Your task to perform on an android device: delete location history Image 0: 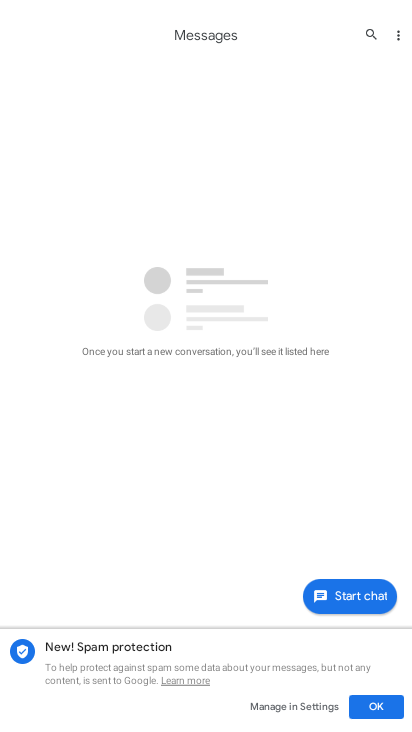
Step 0: press home button
Your task to perform on an android device: delete location history Image 1: 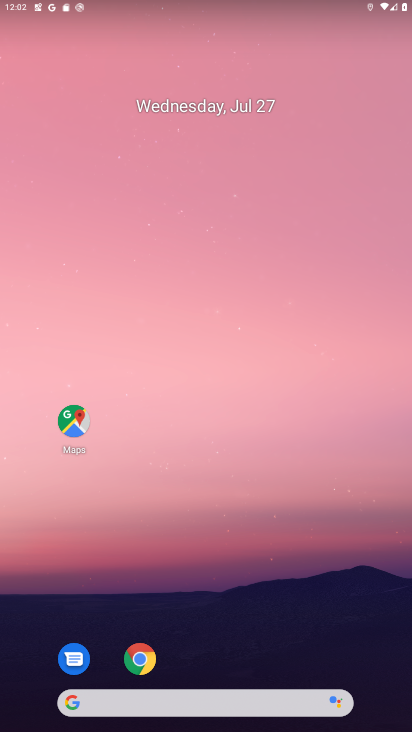
Step 1: drag from (213, 687) to (214, 14)
Your task to perform on an android device: delete location history Image 2: 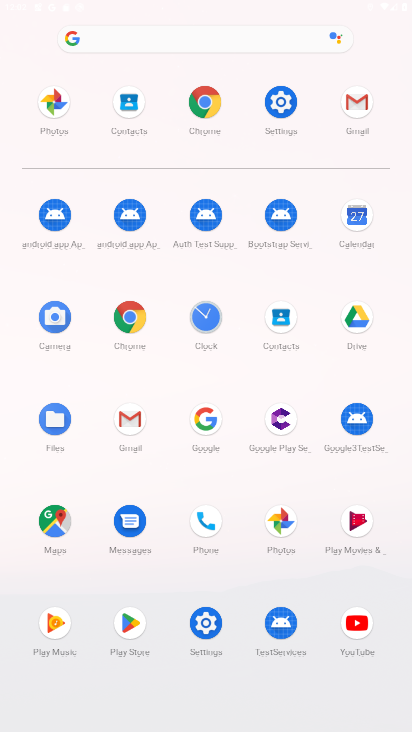
Step 2: click (63, 518)
Your task to perform on an android device: delete location history Image 3: 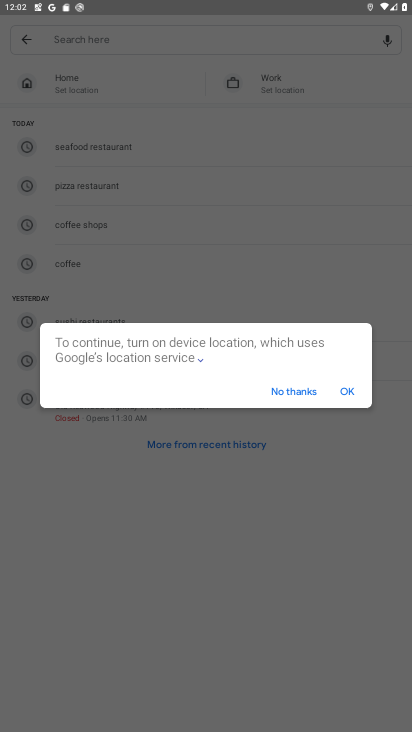
Step 3: click (303, 390)
Your task to perform on an android device: delete location history Image 4: 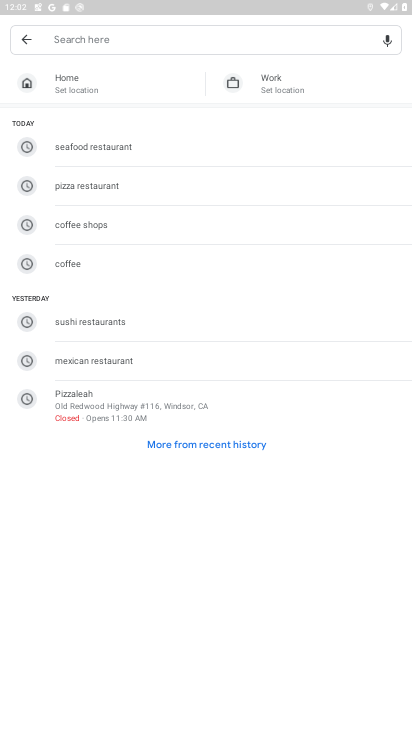
Step 4: press back button
Your task to perform on an android device: delete location history Image 5: 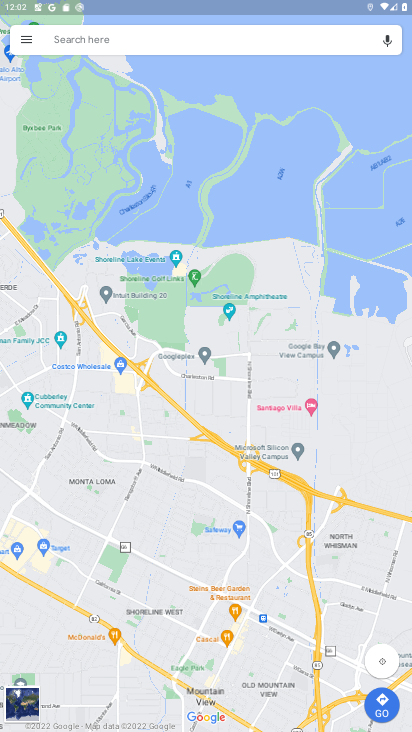
Step 5: click (32, 43)
Your task to perform on an android device: delete location history Image 6: 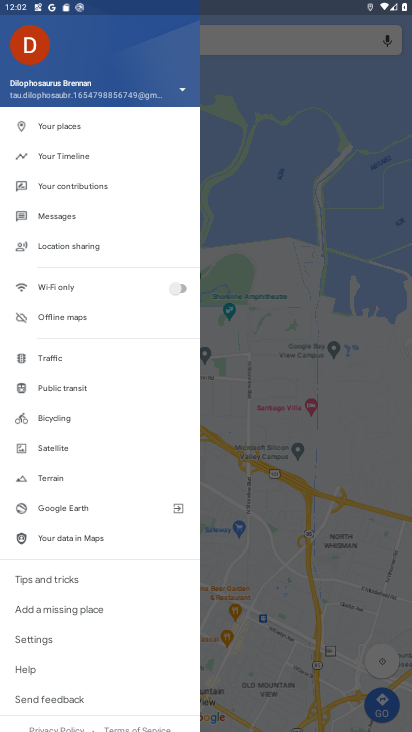
Step 6: click (88, 158)
Your task to perform on an android device: delete location history Image 7: 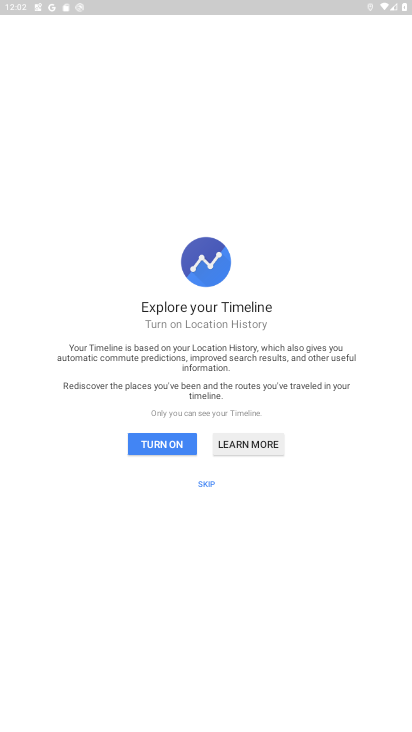
Step 7: click (211, 480)
Your task to perform on an android device: delete location history Image 8: 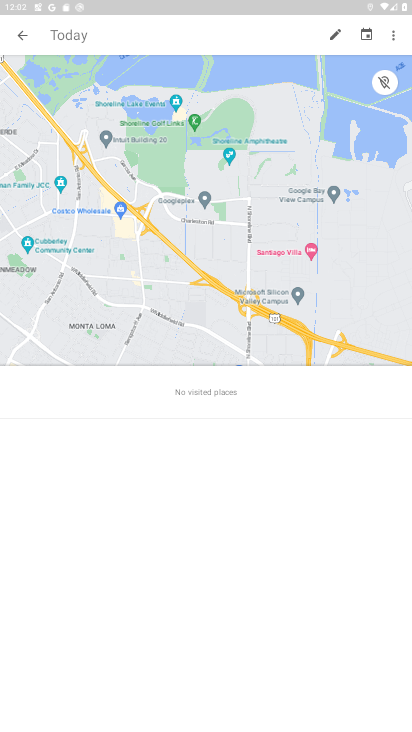
Step 8: click (392, 35)
Your task to perform on an android device: delete location history Image 9: 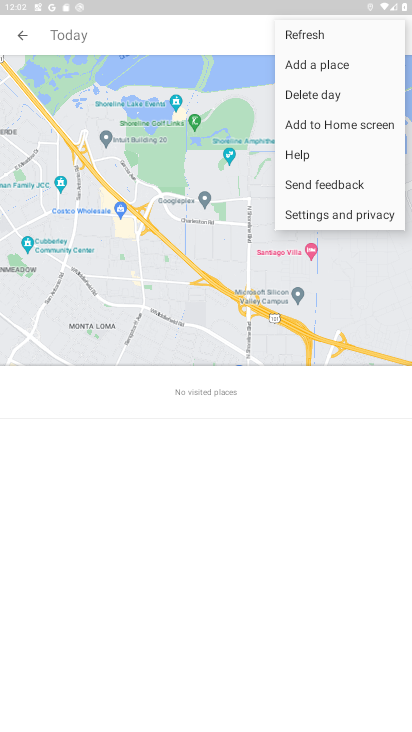
Step 9: click (337, 217)
Your task to perform on an android device: delete location history Image 10: 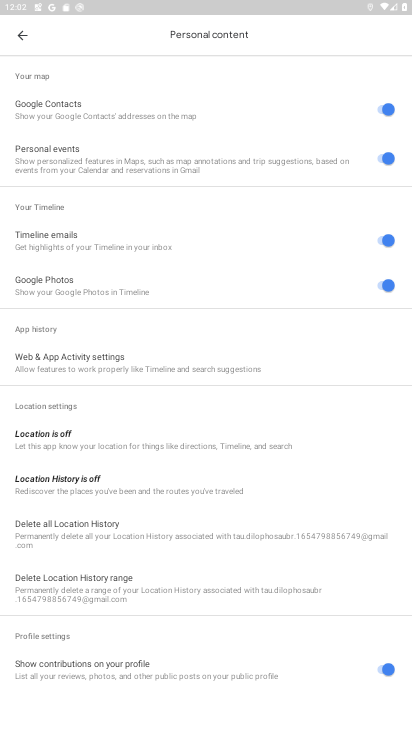
Step 10: click (178, 538)
Your task to perform on an android device: delete location history Image 11: 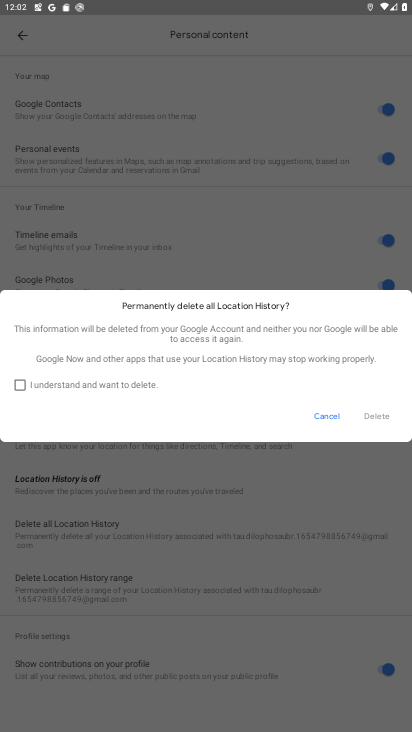
Step 11: click (19, 385)
Your task to perform on an android device: delete location history Image 12: 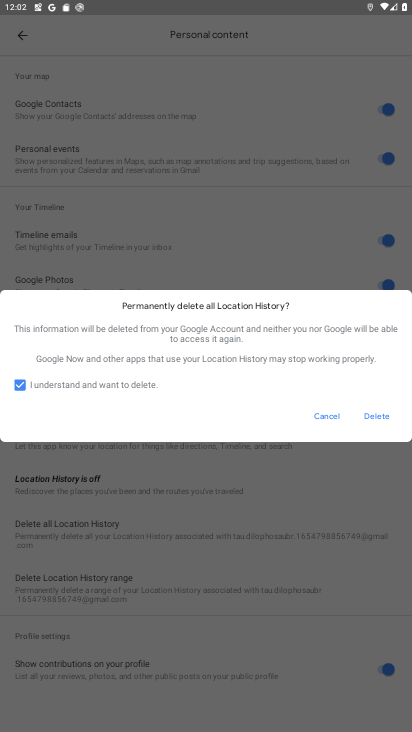
Step 12: click (383, 419)
Your task to perform on an android device: delete location history Image 13: 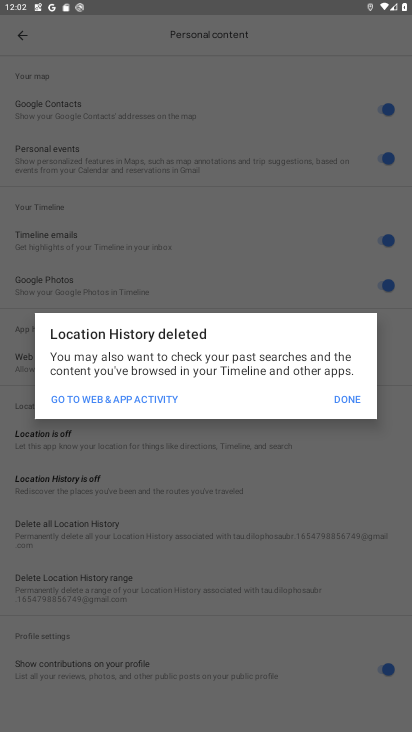
Step 13: click (343, 393)
Your task to perform on an android device: delete location history Image 14: 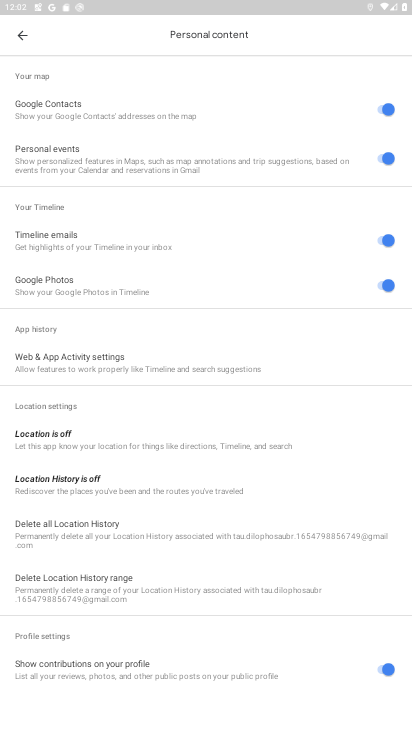
Step 14: task complete